Your task to perform on an android device: Open Wikipedia Image 0: 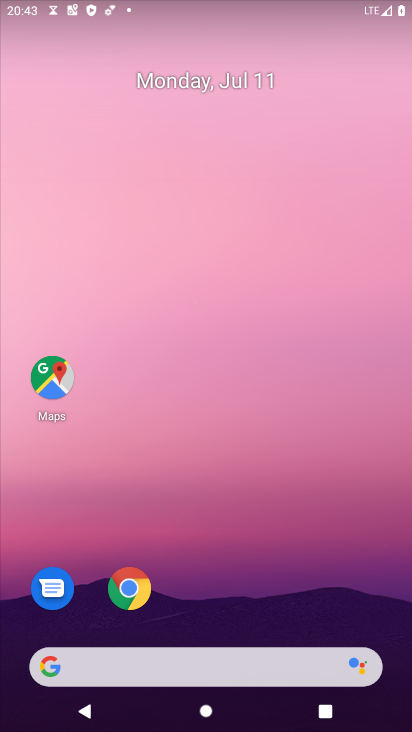
Step 0: click (48, 671)
Your task to perform on an android device: Open Wikipedia Image 1: 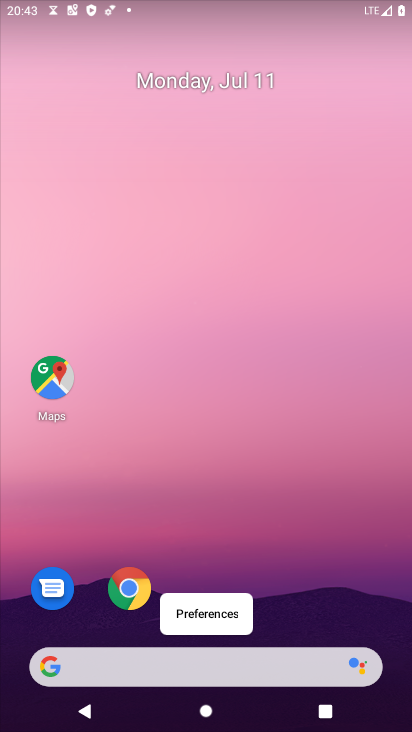
Step 1: click (48, 671)
Your task to perform on an android device: Open Wikipedia Image 2: 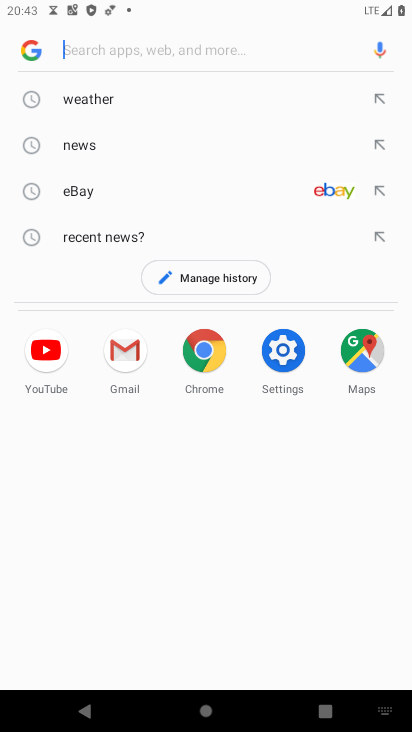
Step 2: type "Wikipedia"
Your task to perform on an android device: Open Wikipedia Image 3: 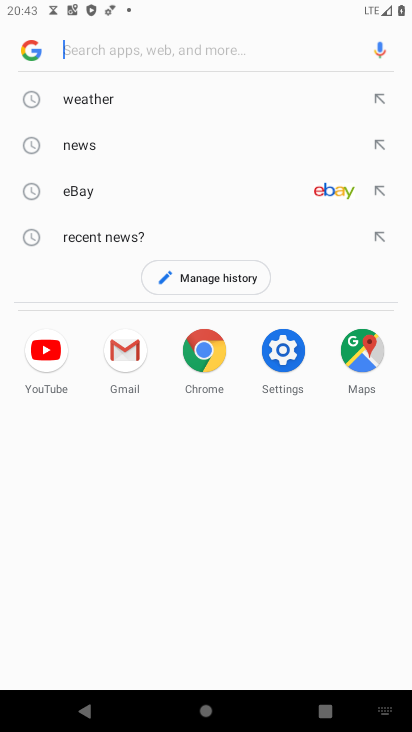
Step 3: click (184, 36)
Your task to perform on an android device: Open Wikipedia Image 4: 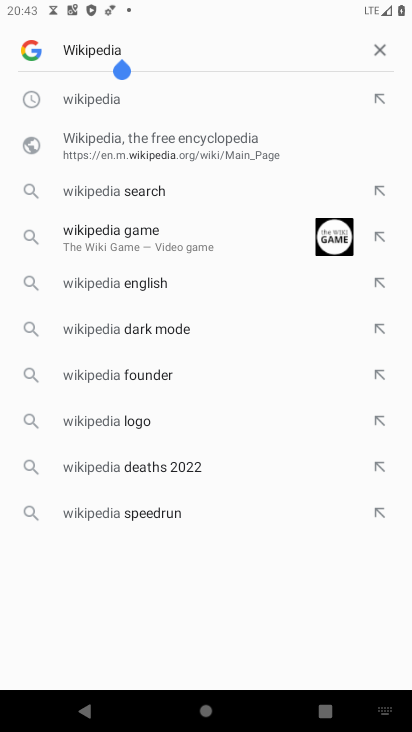
Step 4: click (77, 96)
Your task to perform on an android device: Open Wikipedia Image 5: 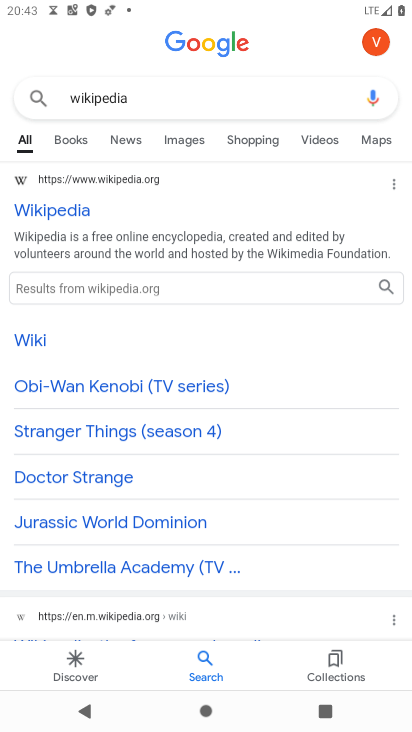
Step 5: click (47, 214)
Your task to perform on an android device: Open Wikipedia Image 6: 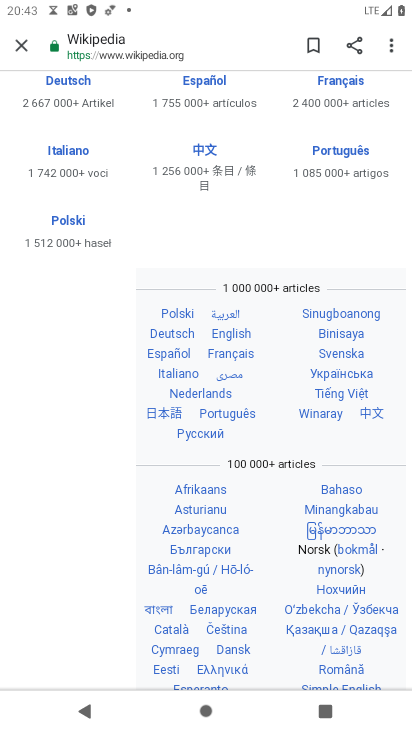
Step 6: task complete